Your task to perform on an android device: open app "Facebook" (install if not already installed), go to login, and select forgot password Image 0: 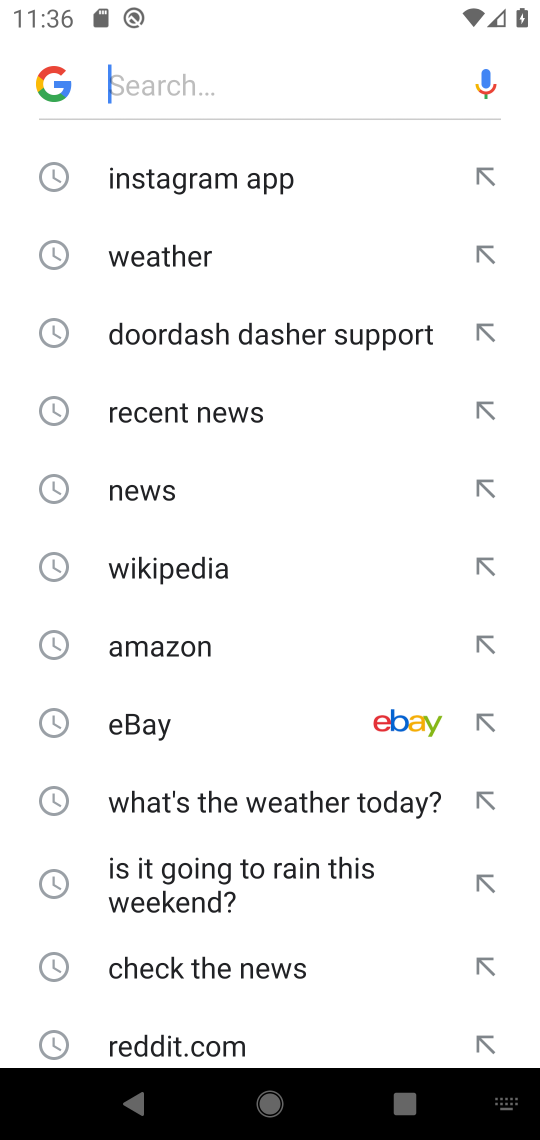
Step 0: press home button
Your task to perform on an android device: open app "Facebook" (install if not already installed), go to login, and select forgot password Image 1: 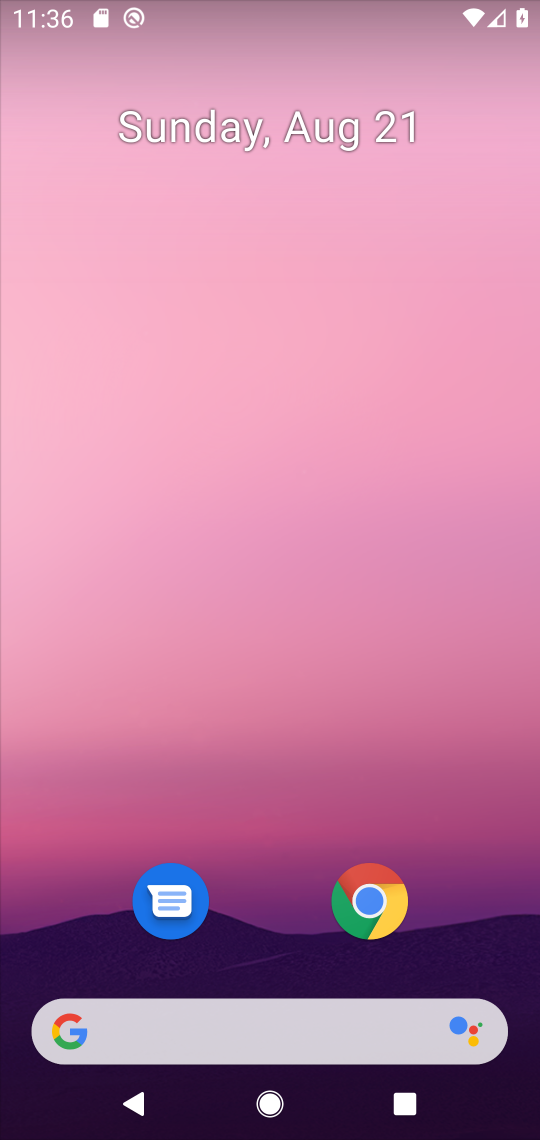
Step 1: drag from (293, 966) to (436, 213)
Your task to perform on an android device: open app "Facebook" (install if not already installed), go to login, and select forgot password Image 2: 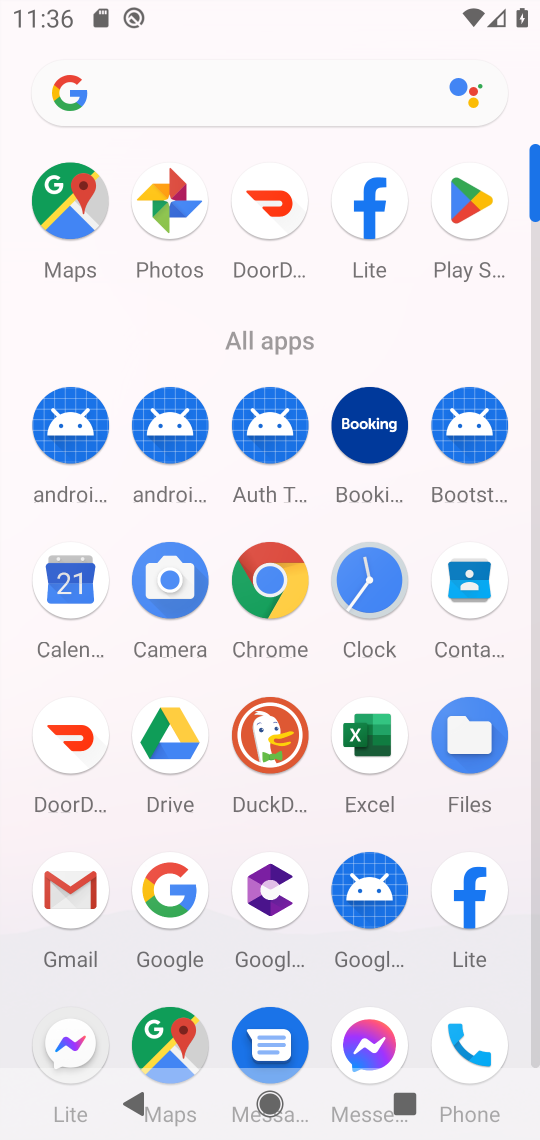
Step 2: click (456, 894)
Your task to perform on an android device: open app "Facebook" (install if not already installed), go to login, and select forgot password Image 3: 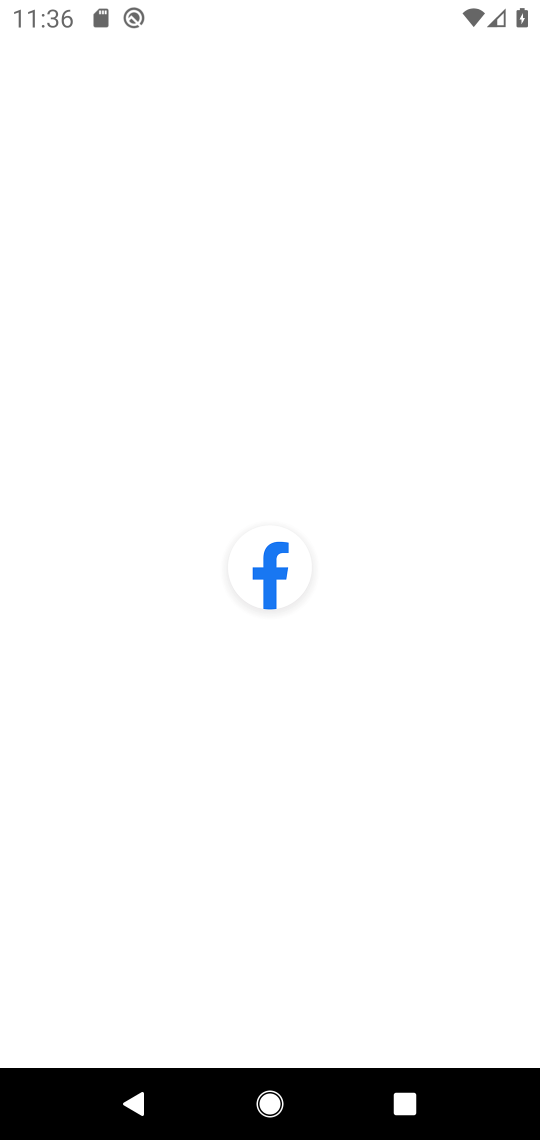
Step 3: task complete